Your task to perform on an android device: Is it going to rain this weekend? Image 0: 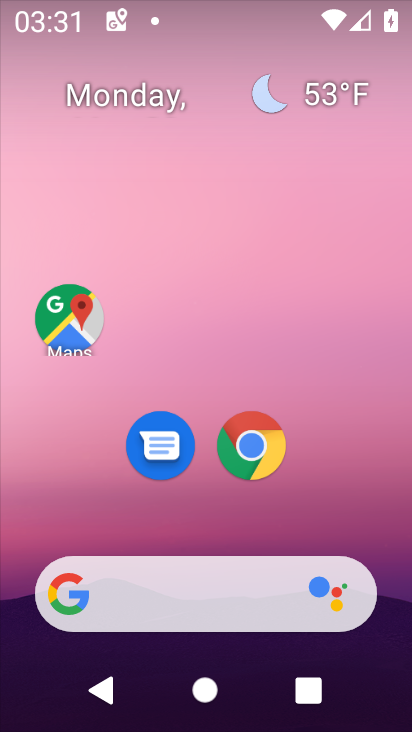
Step 0: drag from (189, 528) to (260, 22)
Your task to perform on an android device: Is it going to rain this weekend? Image 1: 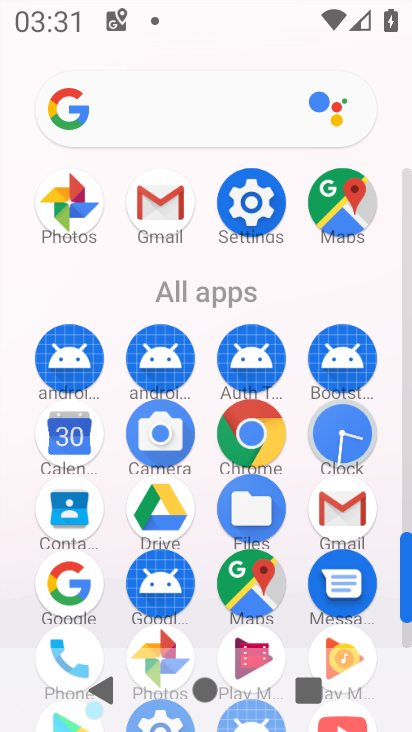
Step 1: click (195, 129)
Your task to perform on an android device: Is it going to rain this weekend? Image 2: 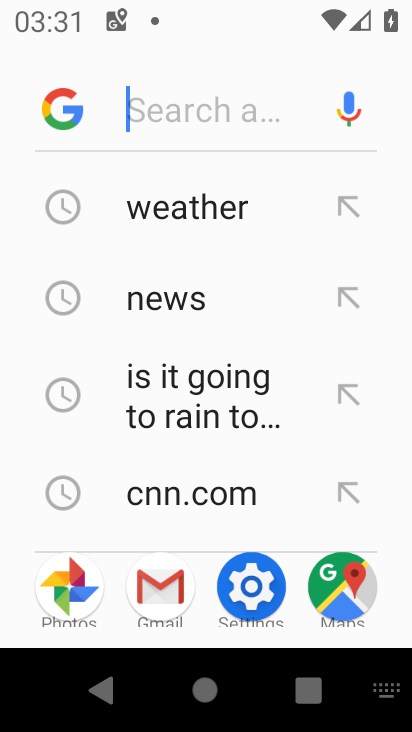
Step 2: click (167, 217)
Your task to perform on an android device: Is it going to rain this weekend? Image 3: 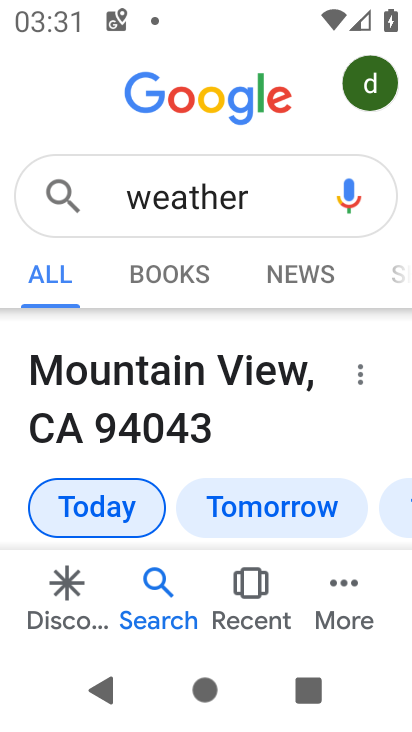
Step 3: drag from (242, 482) to (257, 274)
Your task to perform on an android device: Is it going to rain this weekend? Image 4: 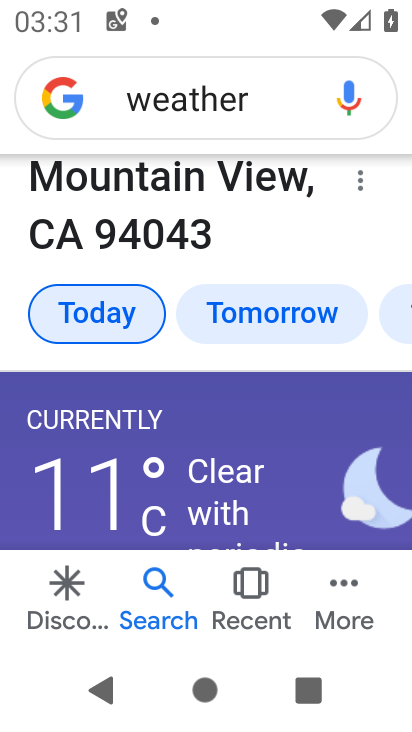
Step 4: drag from (371, 316) to (113, 304)
Your task to perform on an android device: Is it going to rain this weekend? Image 5: 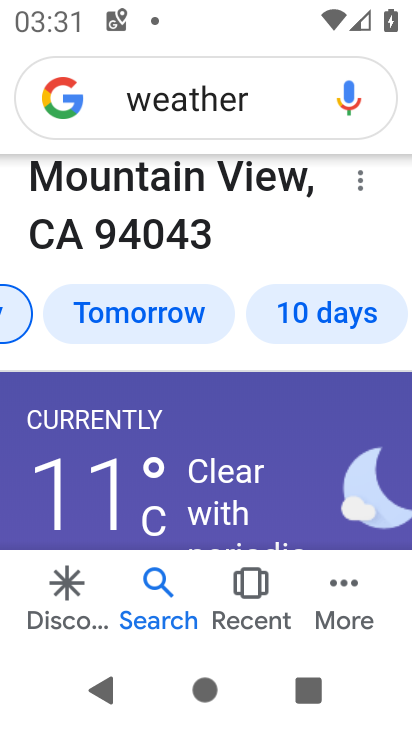
Step 5: click (322, 313)
Your task to perform on an android device: Is it going to rain this weekend? Image 6: 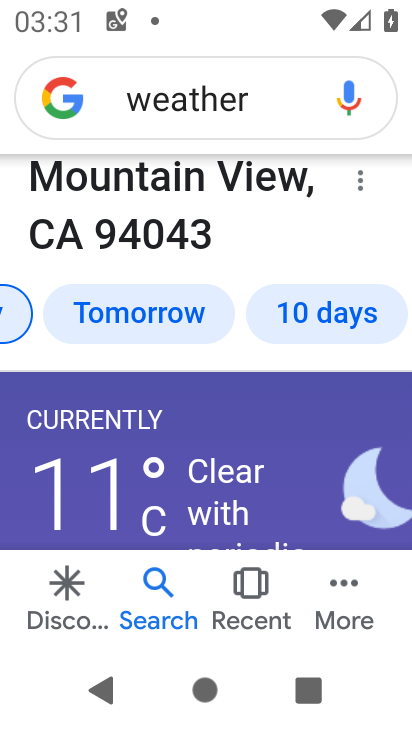
Step 6: task complete